Your task to perform on an android device: turn notification dots off Image 0: 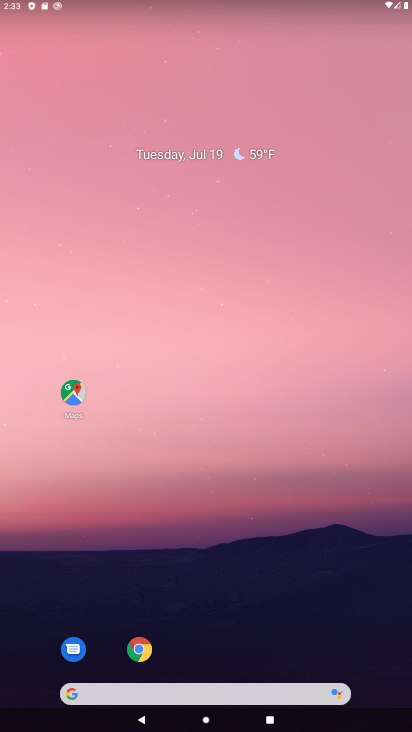
Step 0: drag from (274, 595) to (279, 19)
Your task to perform on an android device: turn notification dots off Image 1: 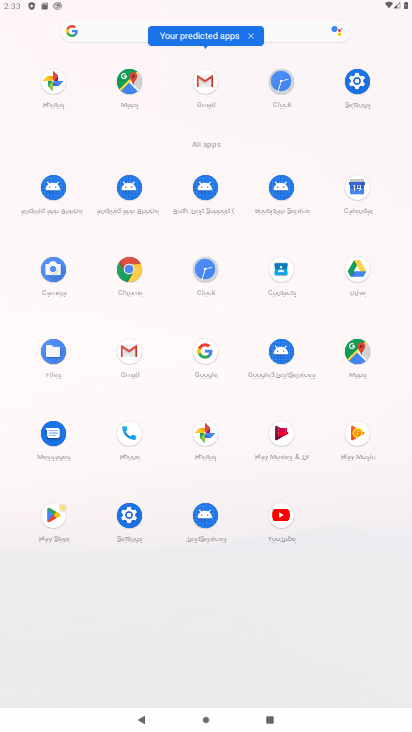
Step 1: click (359, 79)
Your task to perform on an android device: turn notification dots off Image 2: 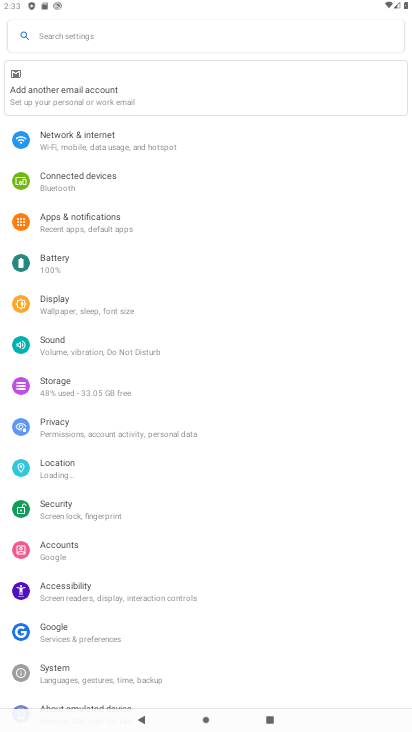
Step 2: click (70, 223)
Your task to perform on an android device: turn notification dots off Image 3: 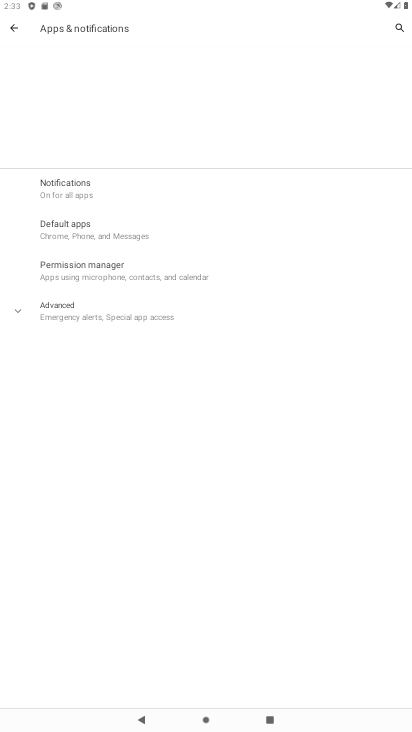
Step 3: click (105, 189)
Your task to perform on an android device: turn notification dots off Image 4: 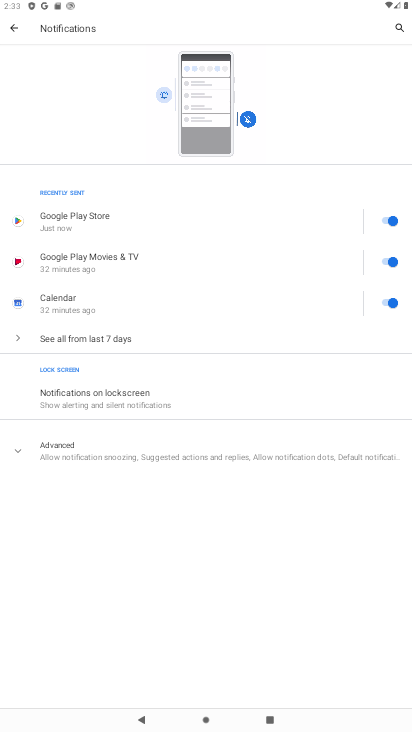
Step 4: click (117, 450)
Your task to perform on an android device: turn notification dots off Image 5: 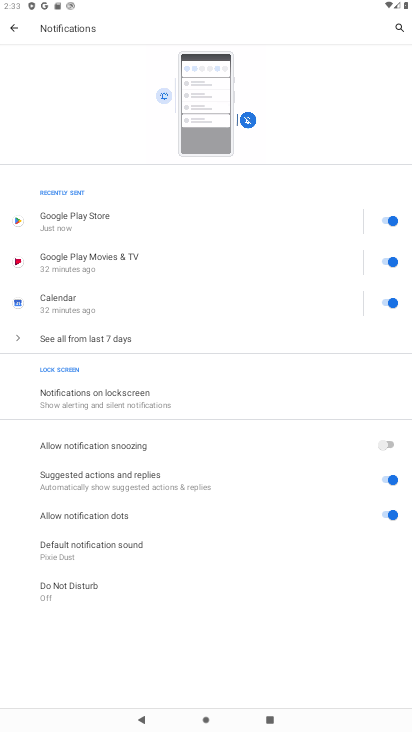
Step 5: click (389, 514)
Your task to perform on an android device: turn notification dots off Image 6: 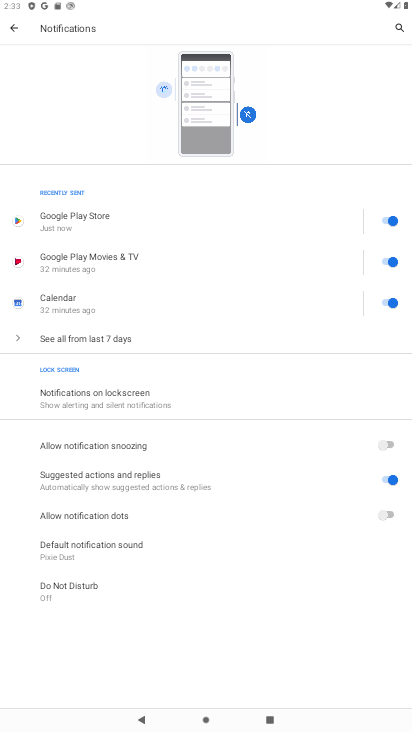
Step 6: task complete